Your task to perform on an android device: Open Wikipedia Image 0: 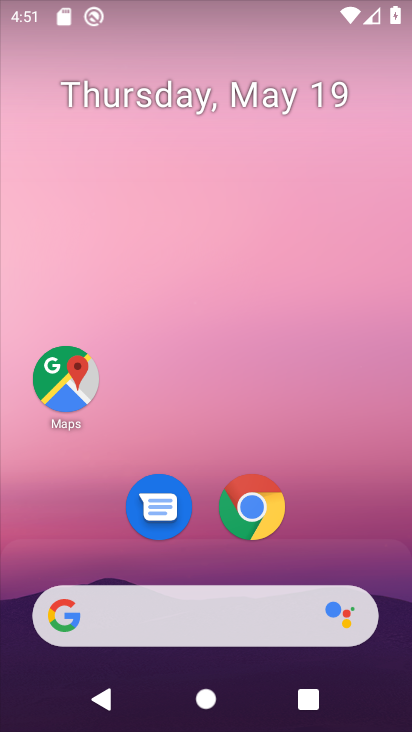
Step 0: click (260, 499)
Your task to perform on an android device: Open Wikipedia Image 1: 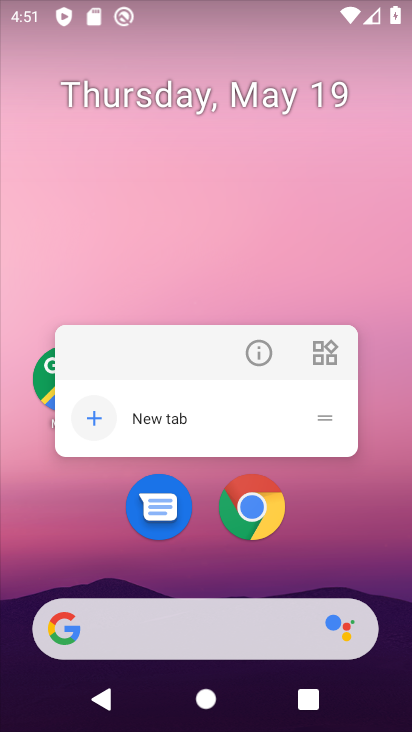
Step 1: click (268, 480)
Your task to perform on an android device: Open Wikipedia Image 2: 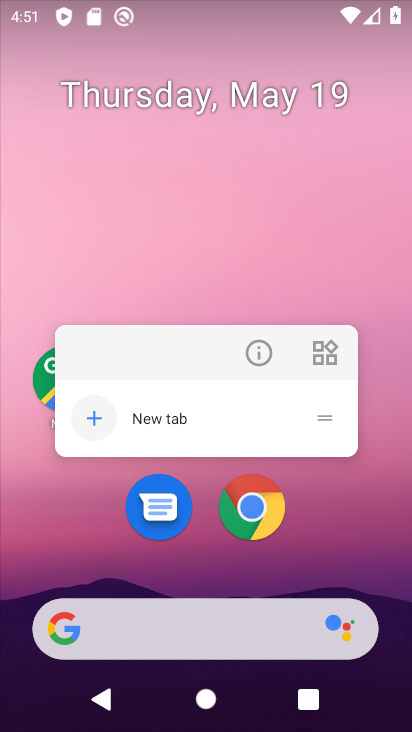
Step 2: click (283, 518)
Your task to perform on an android device: Open Wikipedia Image 3: 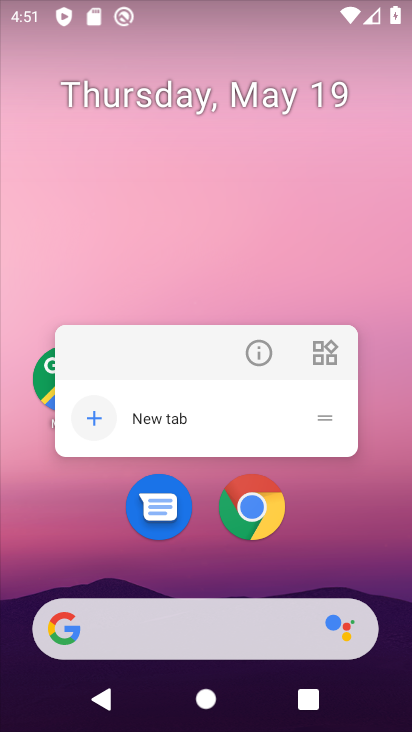
Step 3: click (259, 511)
Your task to perform on an android device: Open Wikipedia Image 4: 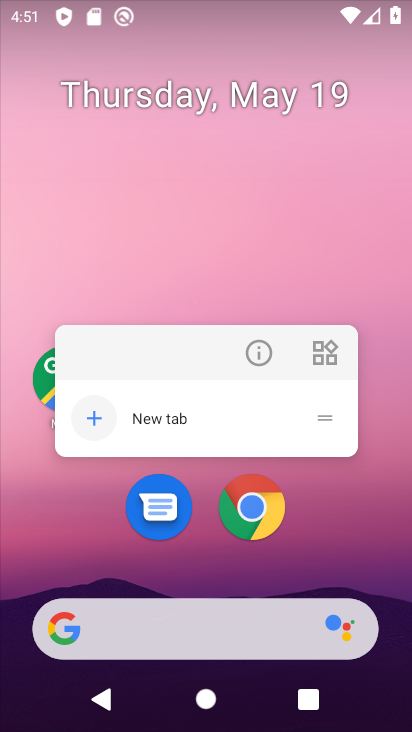
Step 4: click (259, 511)
Your task to perform on an android device: Open Wikipedia Image 5: 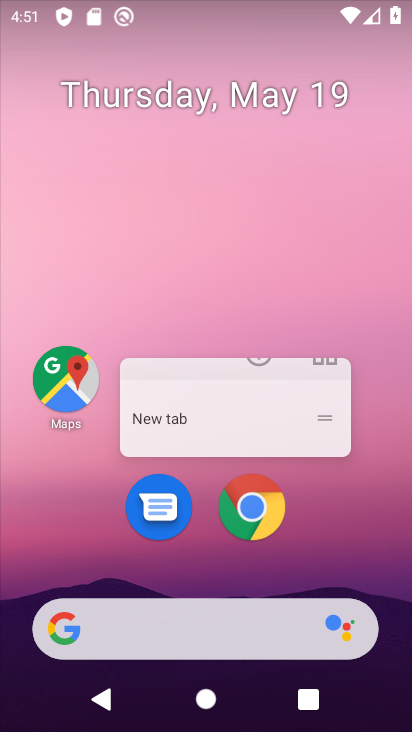
Step 5: click (259, 511)
Your task to perform on an android device: Open Wikipedia Image 6: 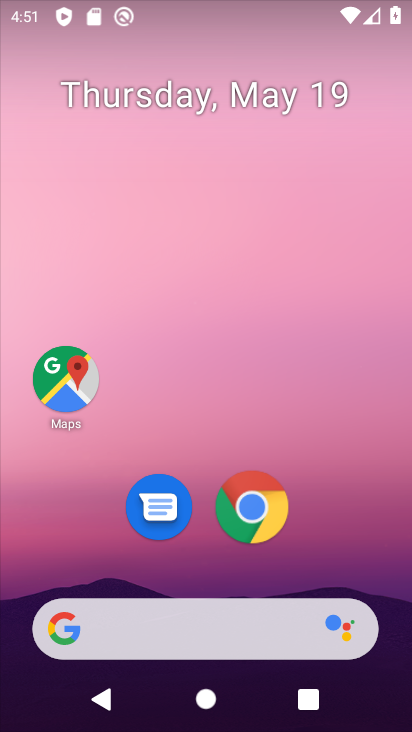
Step 6: click (259, 511)
Your task to perform on an android device: Open Wikipedia Image 7: 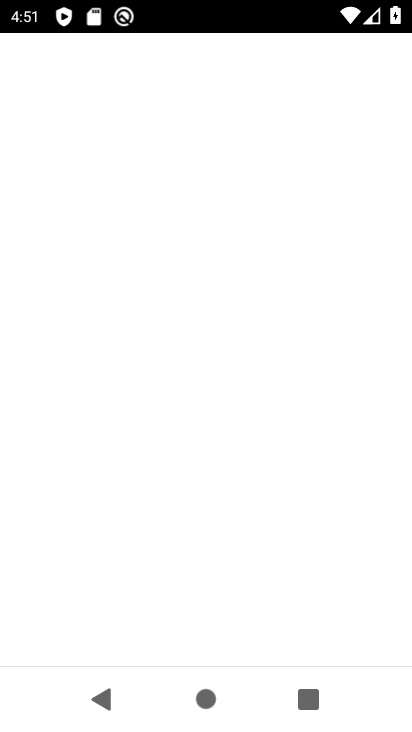
Step 7: click (259, 511)
Your task to perform on an android device: Open Wikipedia Image 8: 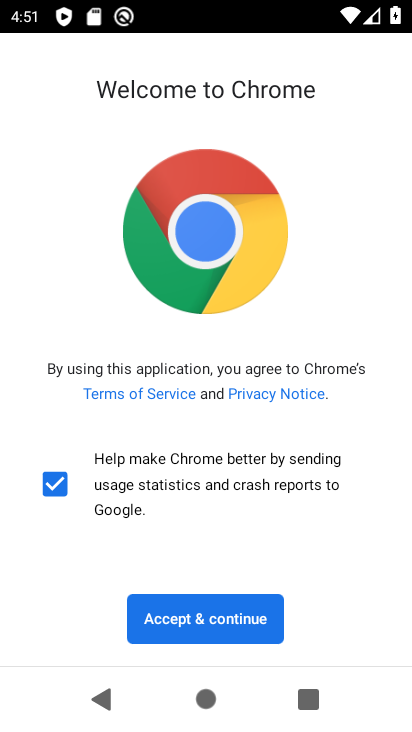
Step 8: click (154, 637)
Your task to perform on an android device: Open Wikipedia Image 9: 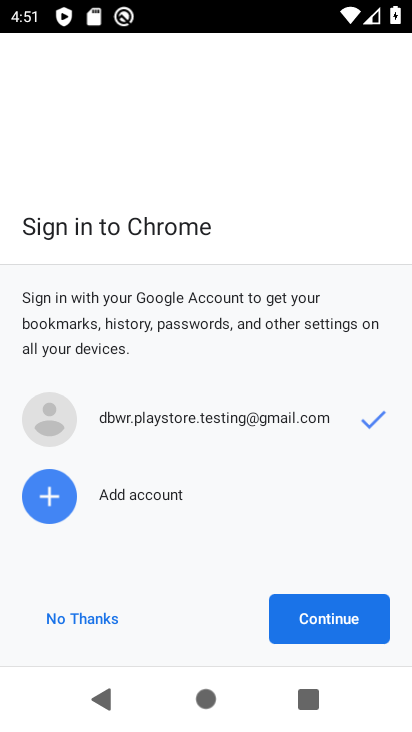
Step 9: click (69, 628)
Your task to perform on an android device: Open Wikipedia Image 10: 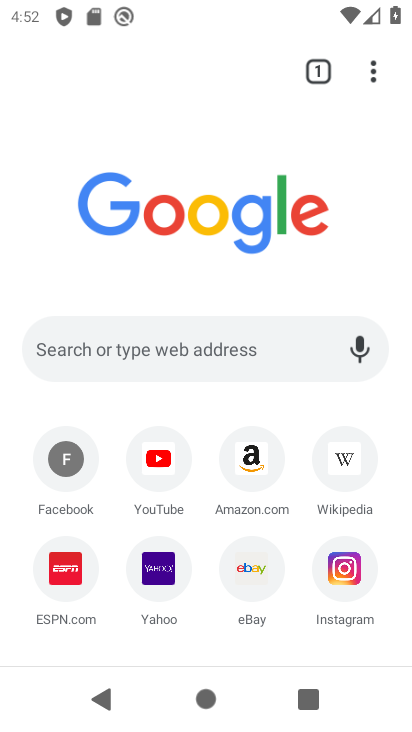
Step 10: click (365, 462)
Your task to perform on an android device: Open Wikipedia Image 11: 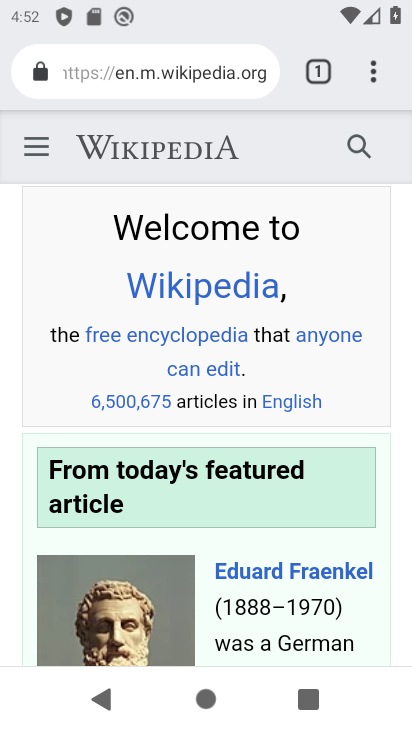
Step 11: task complete